Your task to perform on an android device: open the mobile data screen to see how much data has been used Image 0: 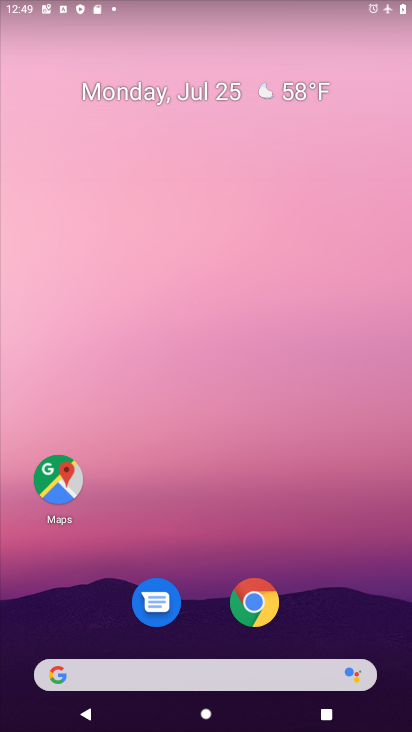
Step 0: drag from (199, 568) to (201, 26)
Your task to perform on an android device: open the mobile data screen to see how much data has been used Image 1: 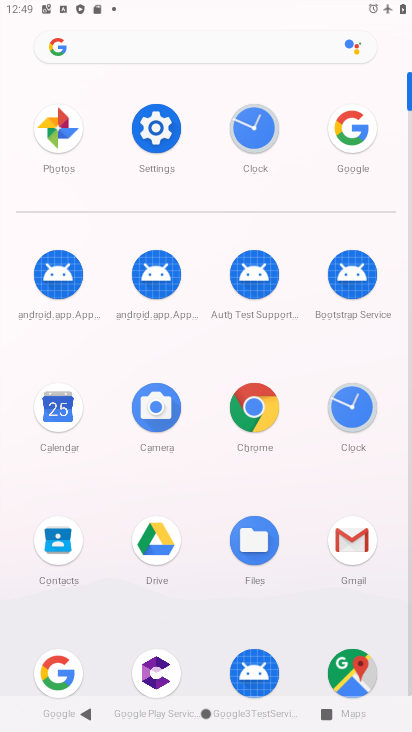
Step 1: click (164, 104)
Your task to perform on an android device: open the mobile data screen to see how much data has been used Image 2: 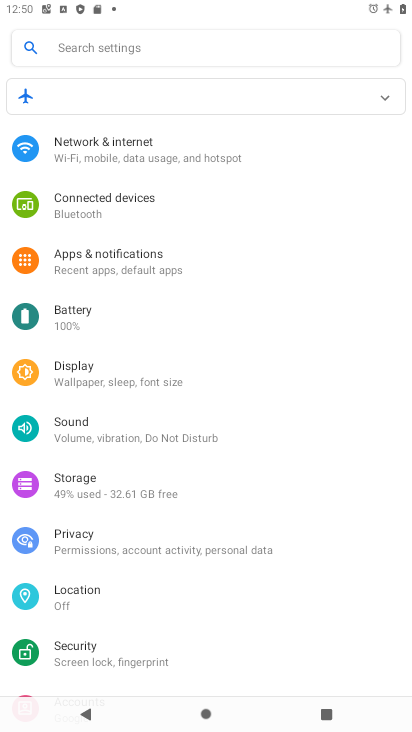
Step 2: click (134, 162)
Your task to perform on an android device: open the mobile data screen to see how much data has been used Image 3: 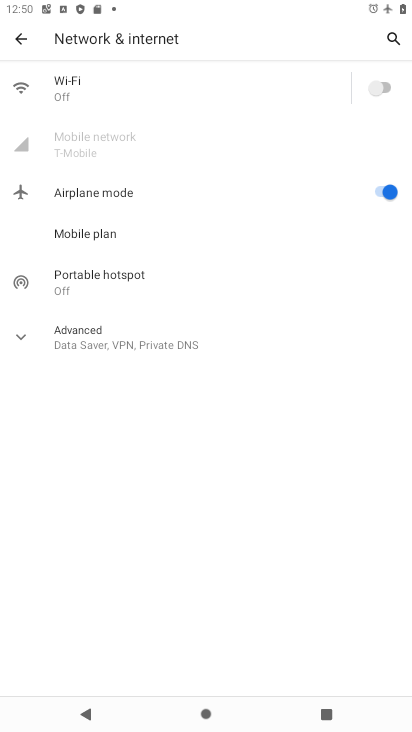
Step 3: click (96, 120)
Your task to perform on an android device: open the mobile data screen to see how much data has been used Image 4: 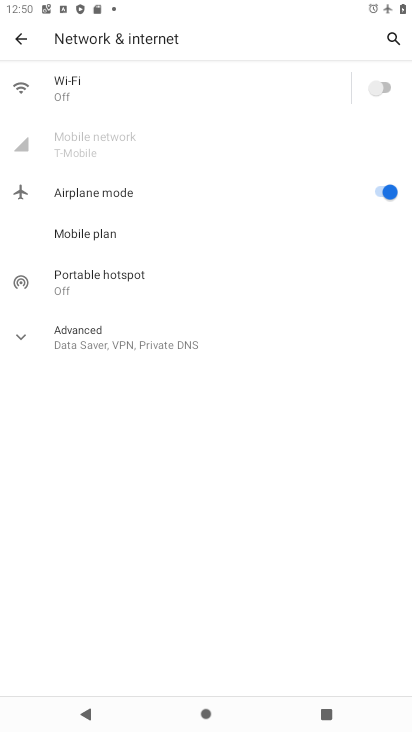
Step 4: click (103, 131)
Your task to perform on an android device: open the mobile data screen to see how much data has been used Image 5: 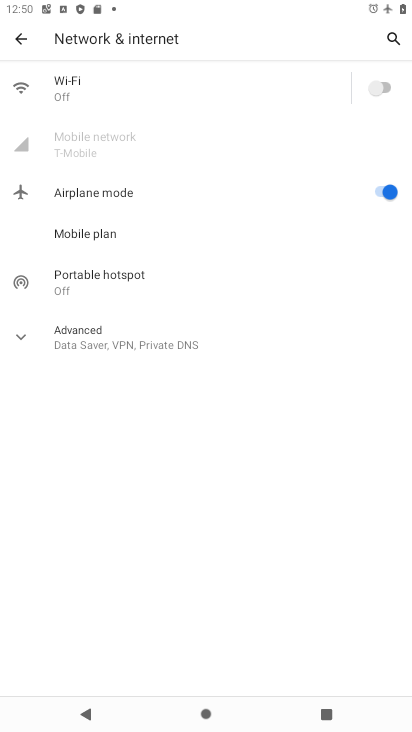
Step 5: click (76, 150)
Your task to perform on an android device: open the mobile data screen to see how much data has been used Image 6: 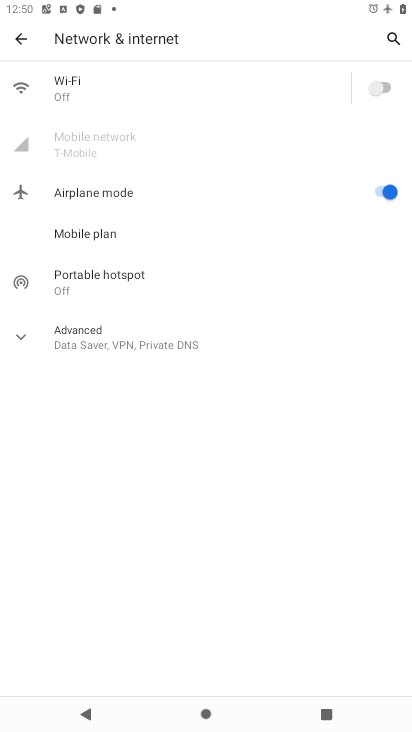
Step 6: task complete